Your task to perform on an android device: Open the web browser Image 0: 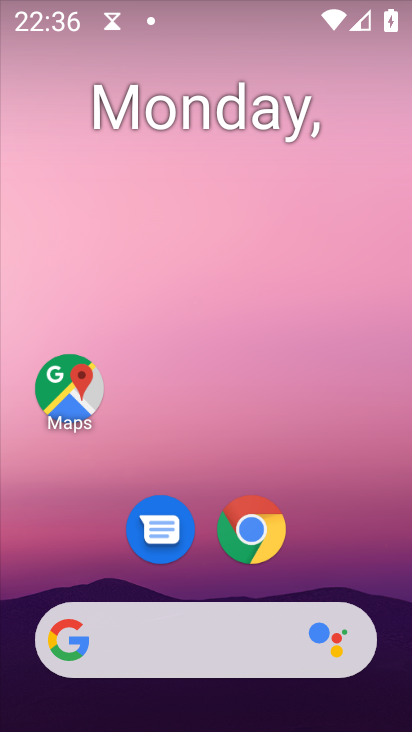
Step 0: drag from (354, 559) to (322, 70)
Your task to perform on an android device: Open the web browser Image 1: 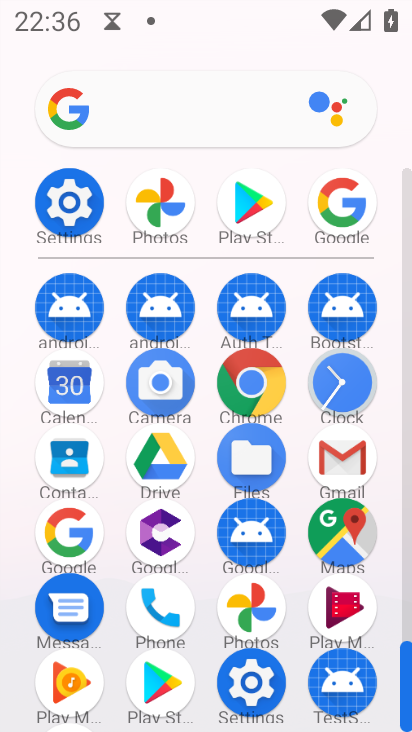
Step 1: click (254, 382)
Your task to perform on an android device: Open the web browser Image 2: 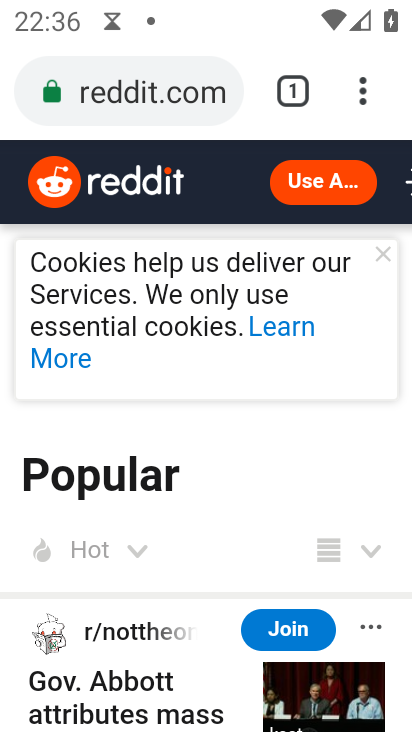
Step 2: task complete